Your task to perform on an android device: Go to eBay Image 0: 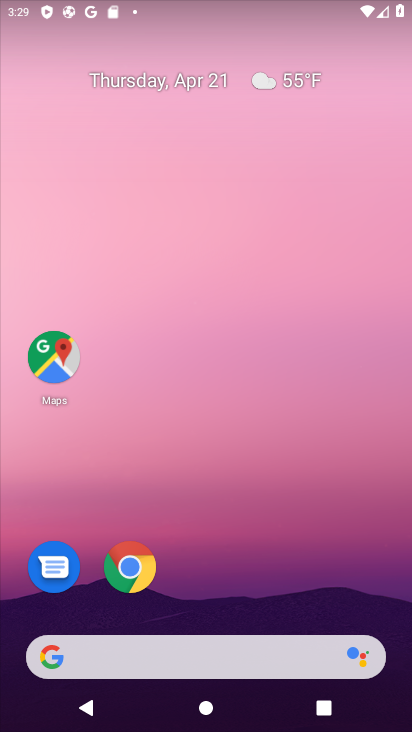
Step 0: drag from (212, 574) to (241, 107)
Your task to perform on an android device: Go to eBay Image 1: 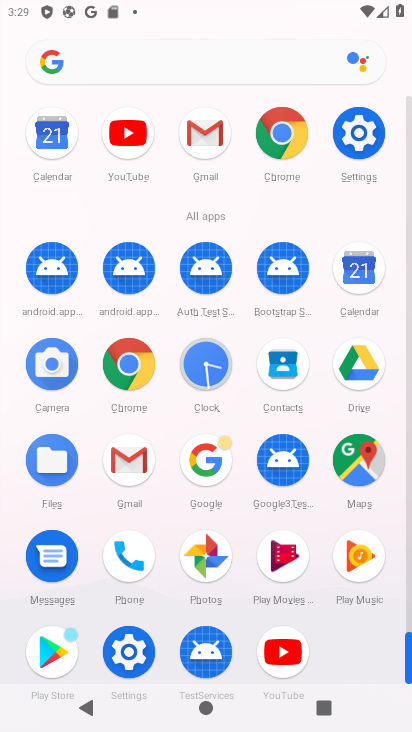
Step 1: click (277, 129)
Your task to perform on an android device: Go to eBay Image 2: 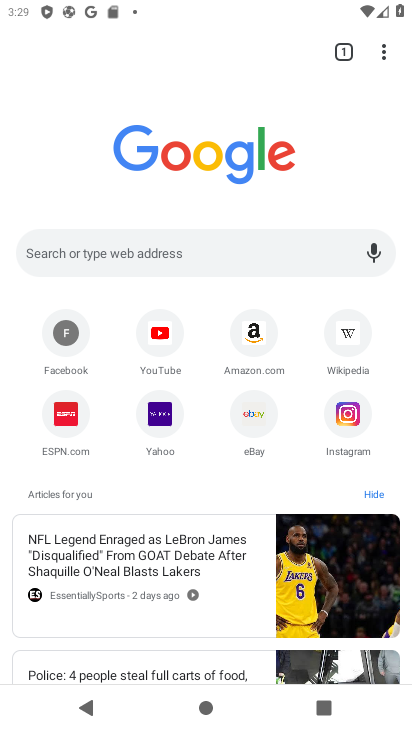
Step 2: click (255, 412)
Your task to perform on an android device: Go to eBay Image 3: 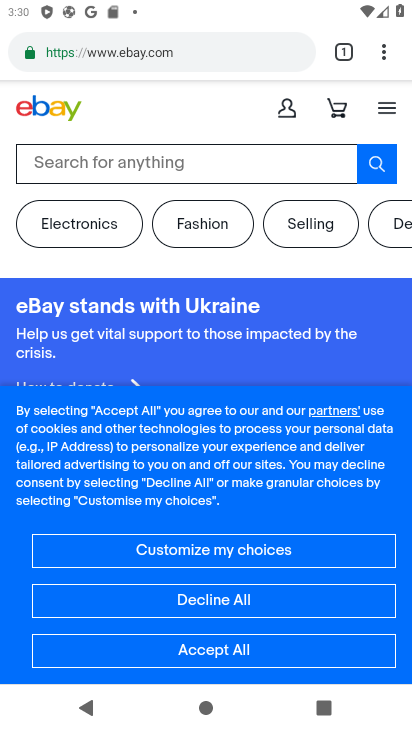
Step 3: click (206, 645)
Your task to perform on an android device: Go to eBay Image 4: 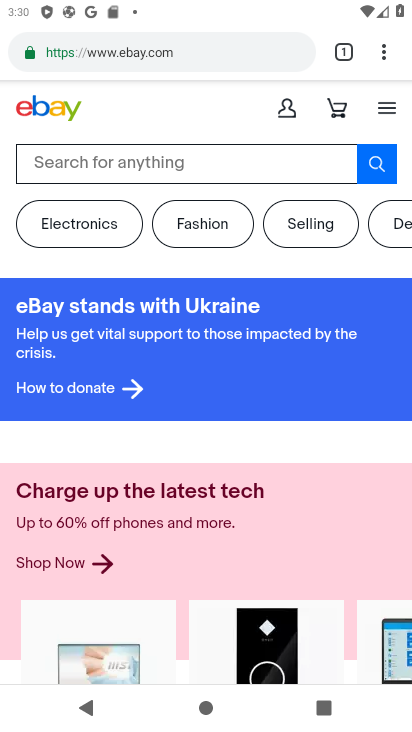
Step 4: task complete